Your task to perform on an android device: Do I have any events this weekend? Image 0: 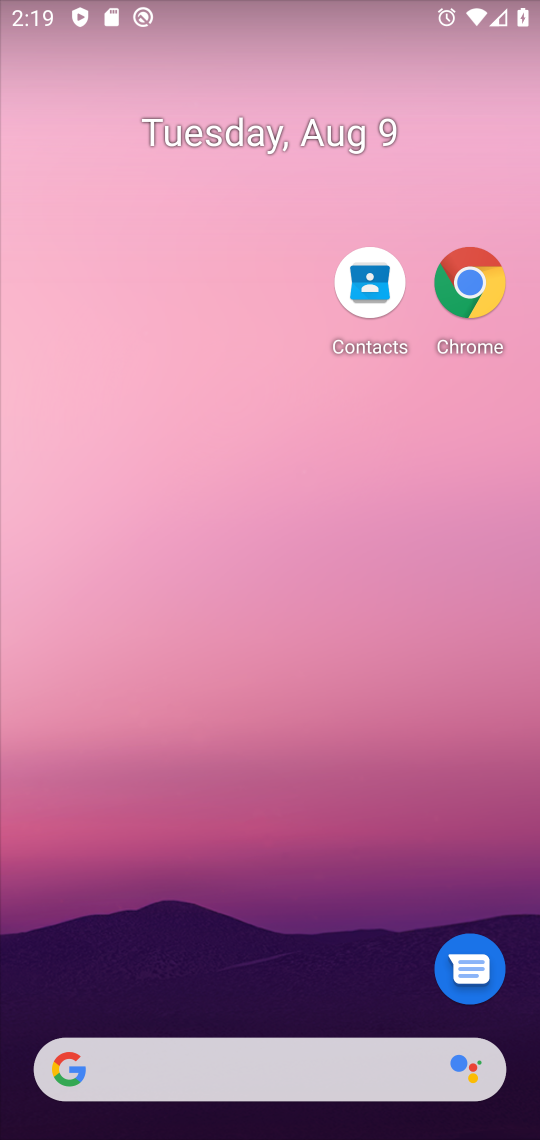
Step 0: drag from (389, 802) to (431, 130)
Your task to perform on an android device: Do I have any events this weekend? Image 1: 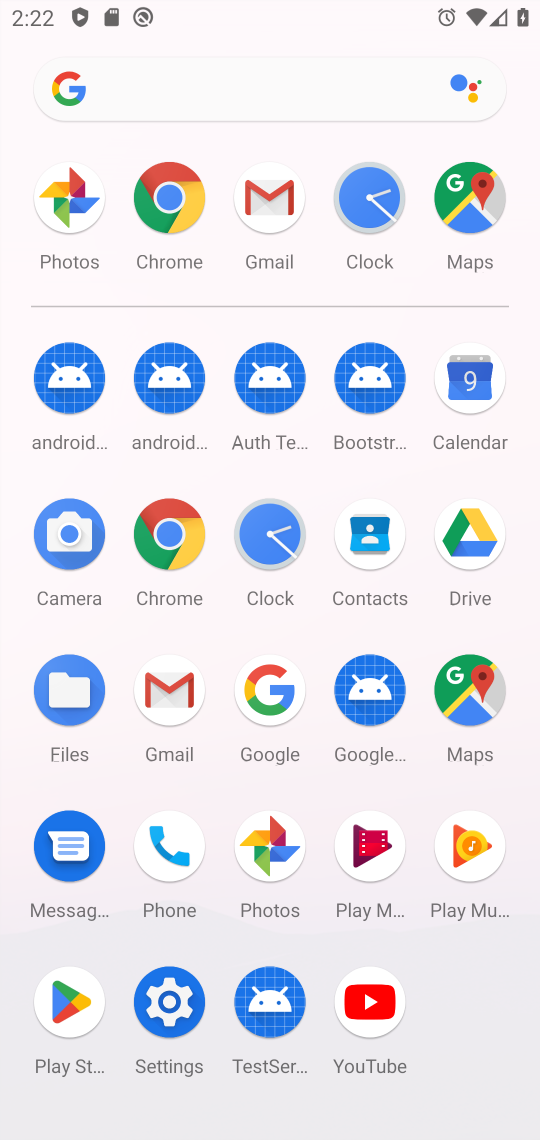
Step 1: click (473, 357)
Your task to perform on an android device: Do I have any events this weekend? Image 2: 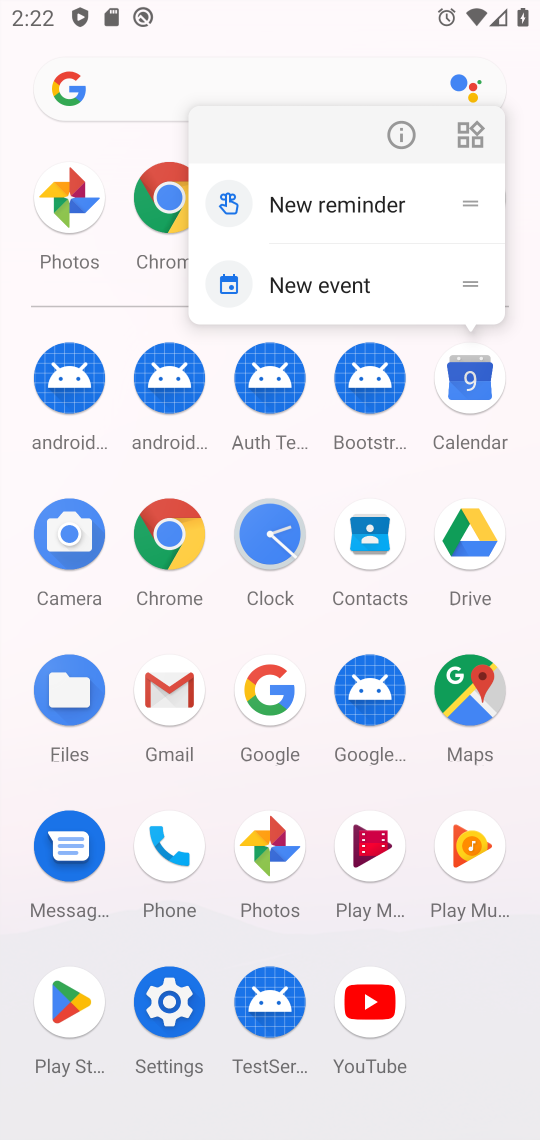
Step 2: click (415, 135)
Your task to perform on an android device: Do I have any events this weekend? Image 3: 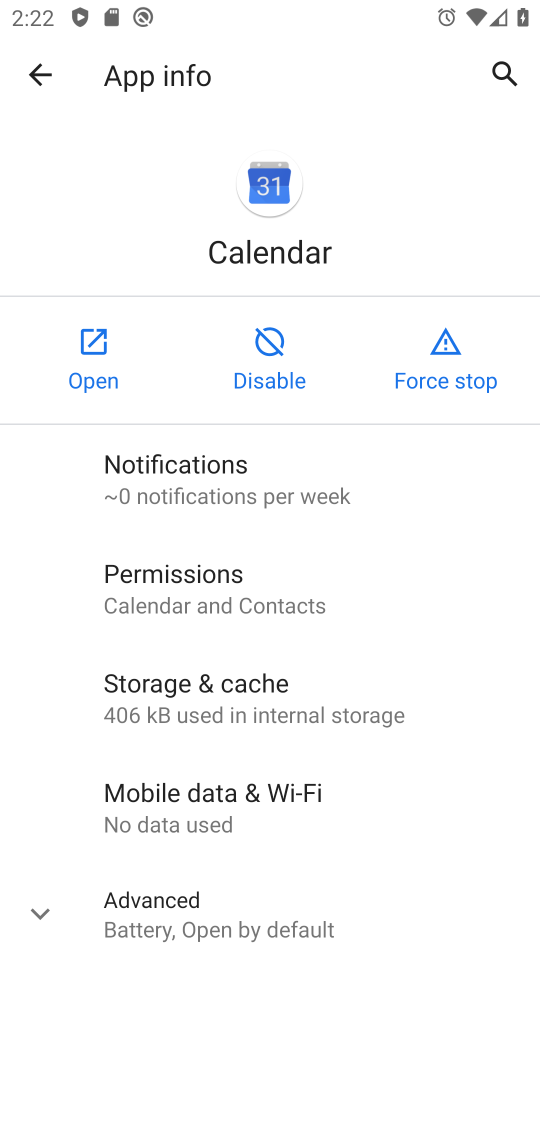
Step 3: click (90, 345)
Your task to perform on an android device: Do I have any events this weekend? Image 4: 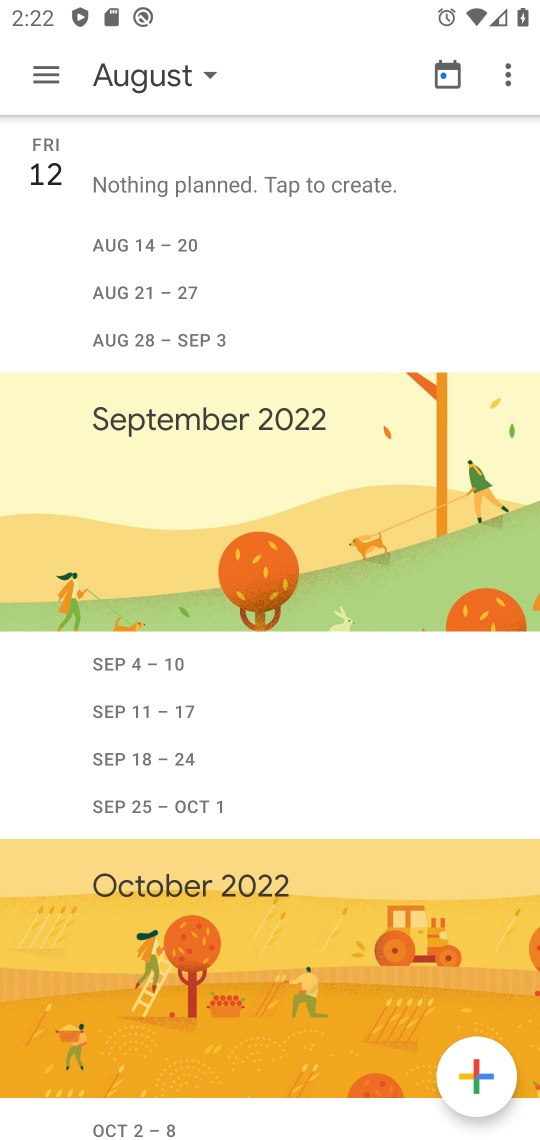
Step 4: click (452, 63)
Your task to perform on an android device: Do I have any events this weekend? Image 5: 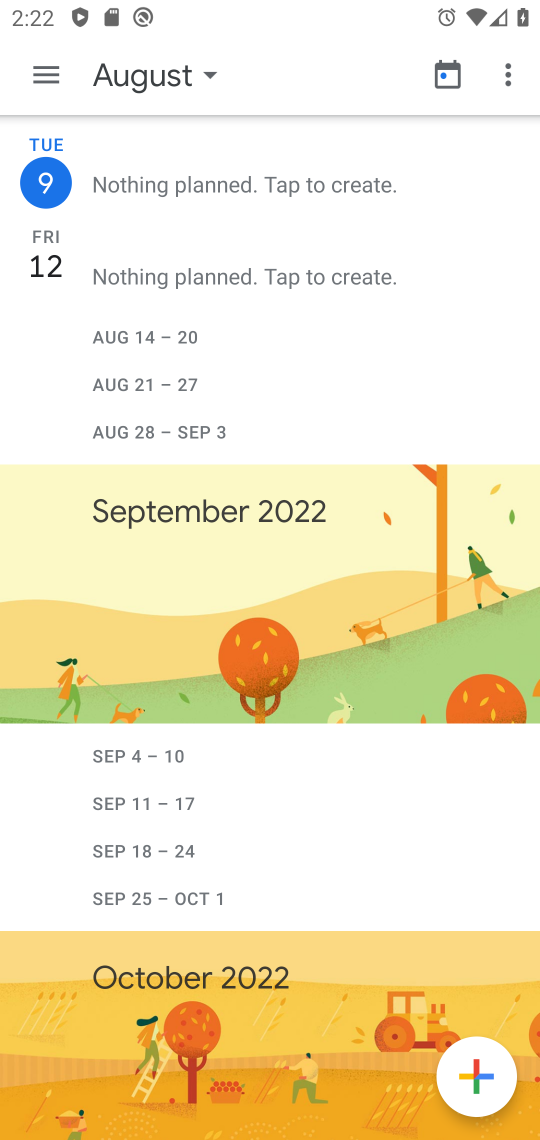
Step 5: click (168, 68)
Your task to perform on an android device: Do I have any events this weekend? Image 6: 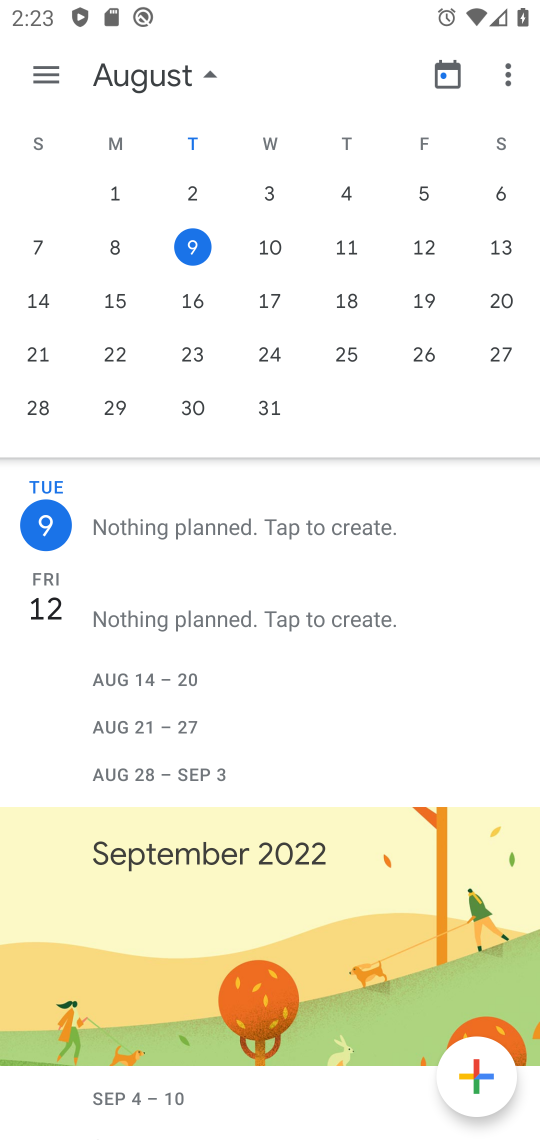
Step 6: click (419, 252)
Your task to perform on an android device: Do I have any events this weekend? Image 7: 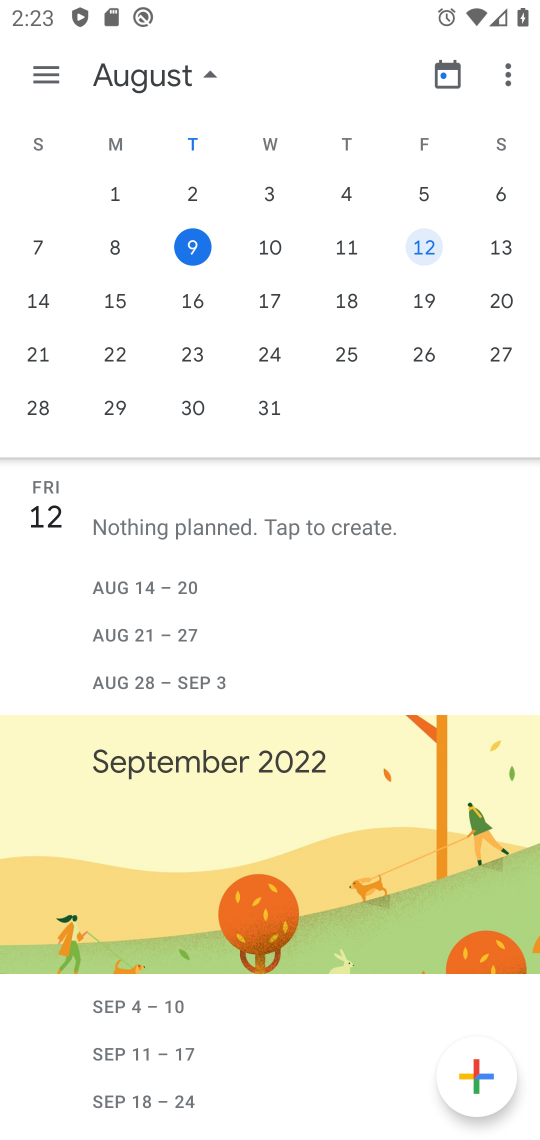
Step 7: task complete